Your task to perform on an android device: turn on translation in the chrome app Image 0: 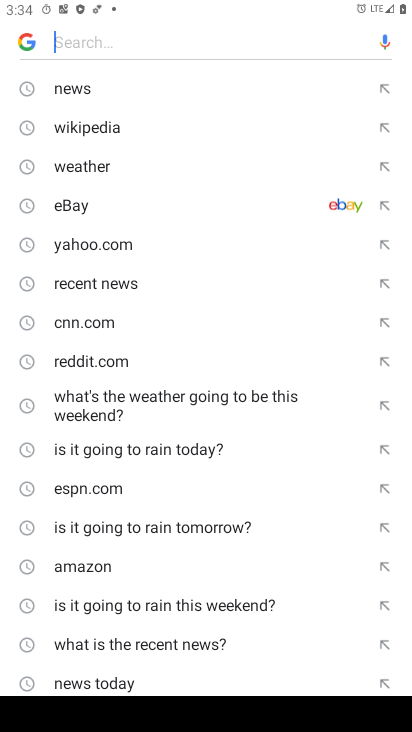
Step 0: press home button
Your task to perform on an android device: turn on translation in the chrome app Image 1: 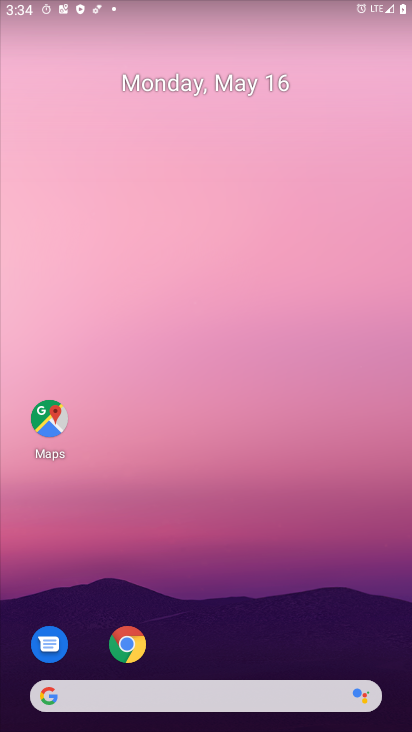
Step 1: drag from (291, 581) to (358, 317)
Your task to perform on an android device: turn on translation in the chrome app Image 2: 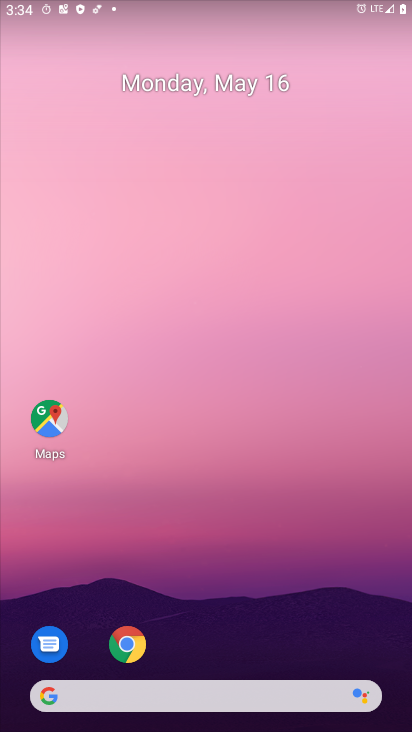
Step 2: drag from (261, 558) to (296, 2)
Your task to perform on an android device: turn on translation in the chrome app Image 3: 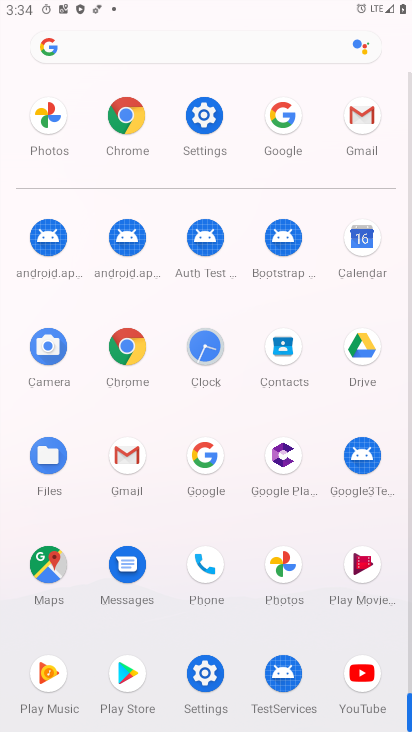
Step 3: click (147, 106)
Your task to perform on an android device: turn on translation in the chrome app Image 4: 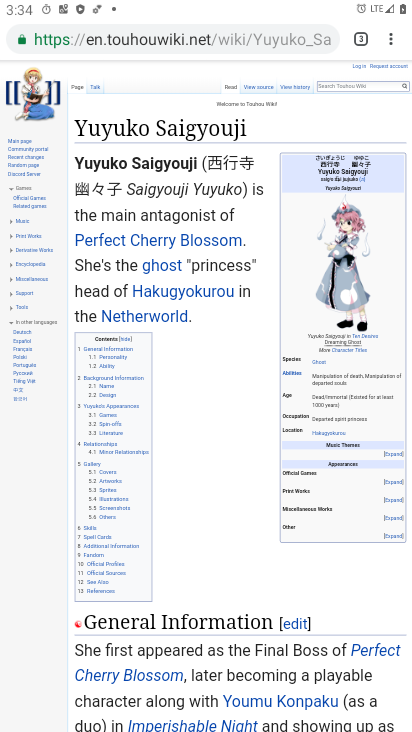
Step 4: click (393, 35)
Your task to perform on an android device: turn on translation in the chrome app Image 5: 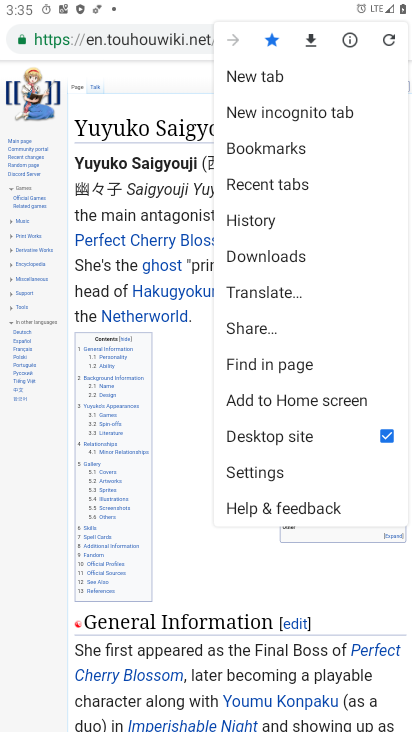
Step 5: click (298, 294)
Your task to perform on an android device: turn on translation in the chrome app Image 6: 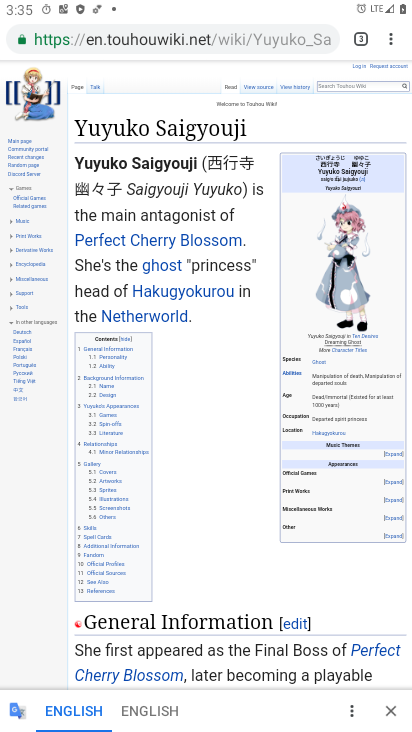
Step 6: click (353, 712)
Your task to perform on an android device: turn on translation in the chrome app Image 7: 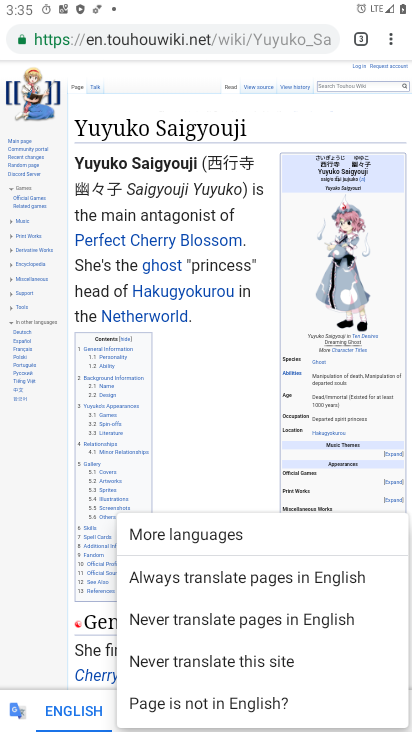
Step 7: click (258, 568)
Your task to perform on an android device: turn on translation in the chrome app Image 8: 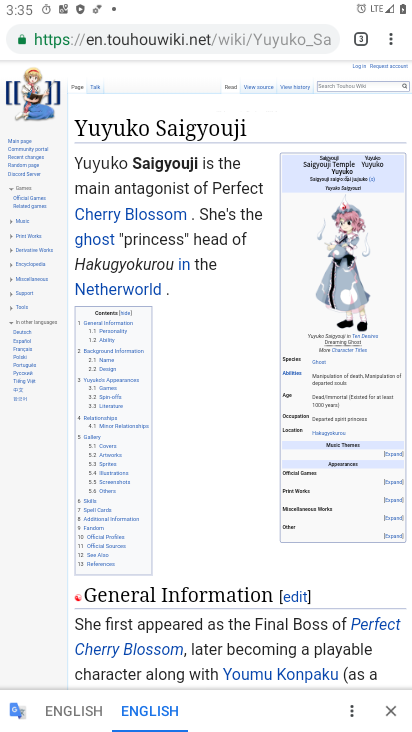
Step 8: task complete